Your task to perform on an android device: Open my contact list Image 0: 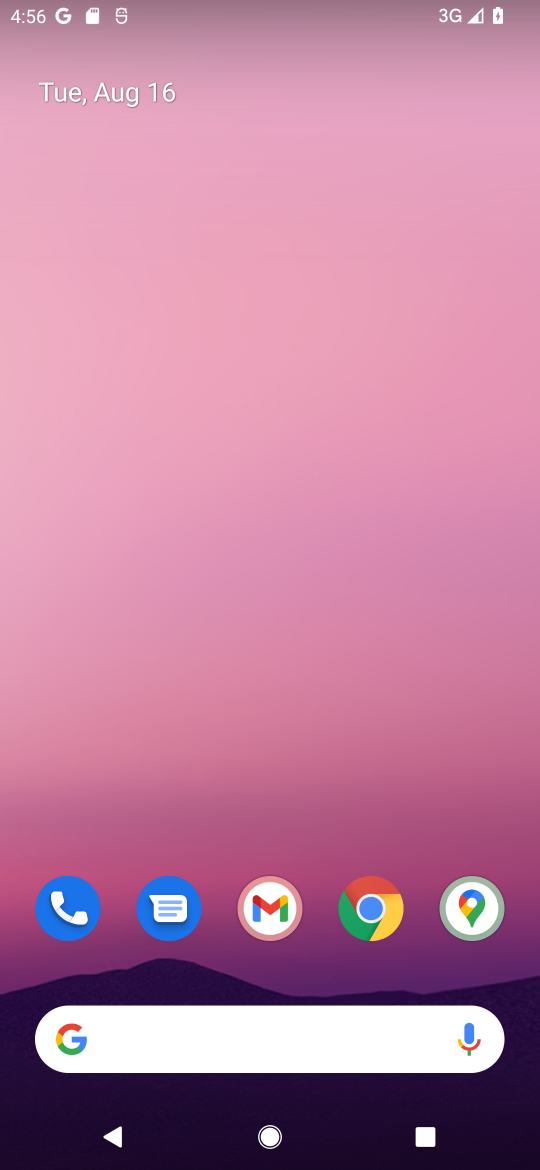
Step 0: drag from (286, 903) to (478, 6)
Your task to perform on an android device: Open my contact list Image 1: 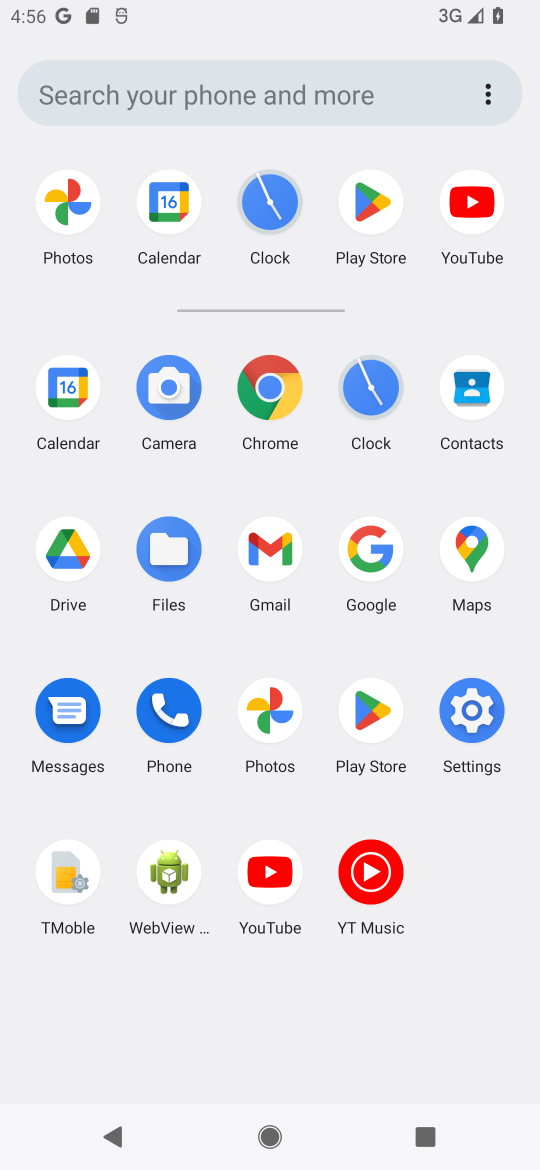
Step 1: click (475, 405)
Your task to perform on an android device: Open my contact list Image 2: 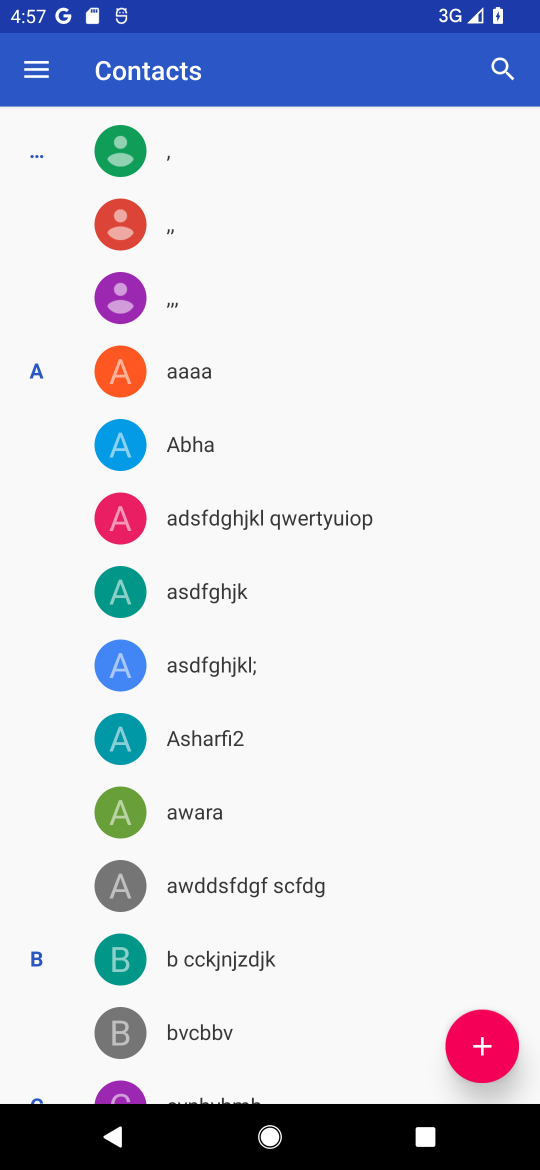
Step 2: task complete